Your task to perform on an android device: turn off notifications in google photos Image 0: 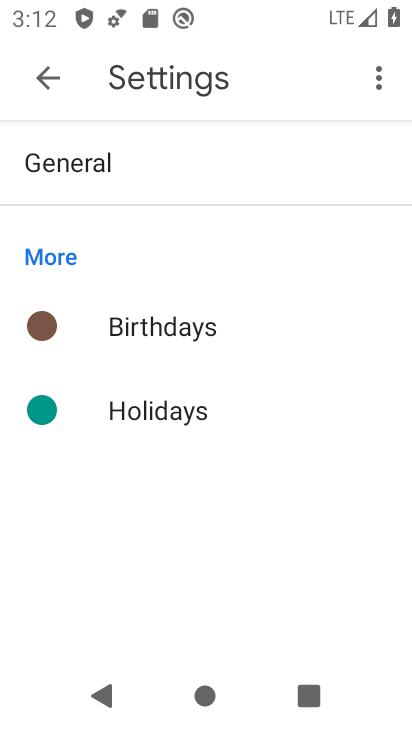
Step 0: press home button
Your task to perform on an android device: turn off notifications in google photos Image 1: 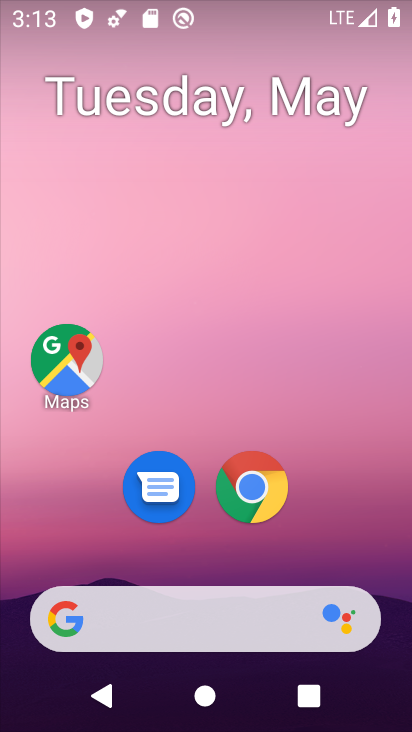
Step 1: drag from (319, 520) to (309, 164)
Your task to perform on an android device: turn off notifications in google photos Image 2: 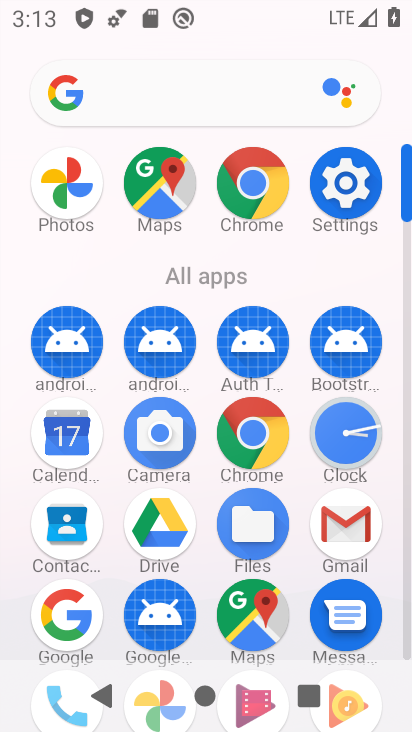
Step 2: drag from (210, 561) to (222, 318)
Your task to perform on an android device: turn off notifications in google photos Image 3: 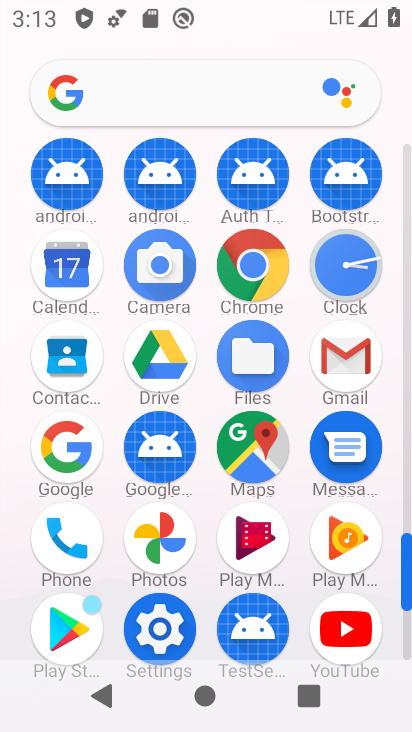
Step 3: click (158, 550)
Your task to perform on an android device: turn off notifications in google photos Image 4: 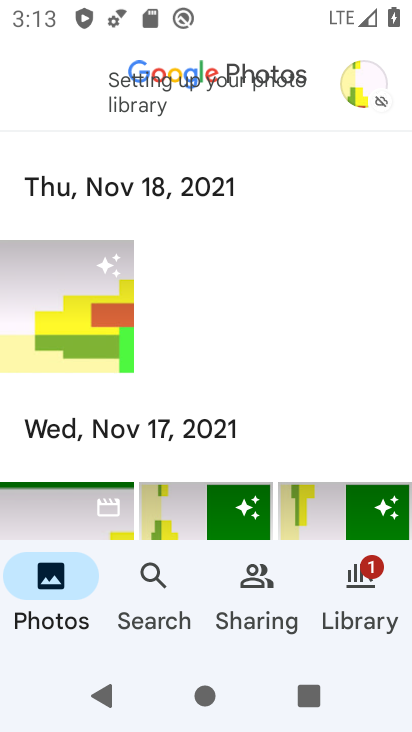
Step 4: click (363, 83)
Your task to perform on an android device: turn off notifications in google photos Image 5: 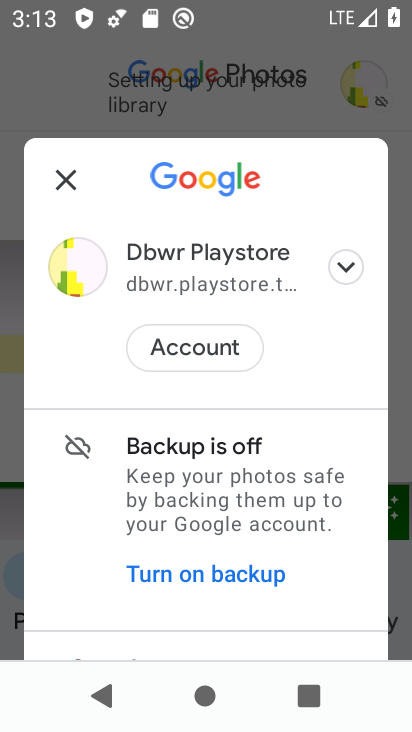
Step 5: drag from (289, 490) to (294, 142)
Your task to perform on an android device: turn off notifications in google photos Image 6: 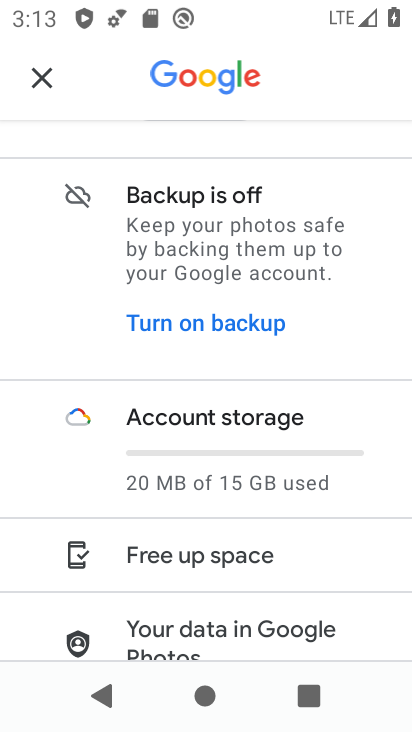
Step 6: drag from (269, 566) to (306, 178)
Your task to perform on an android device: turn off notifications in google photos Image 7: 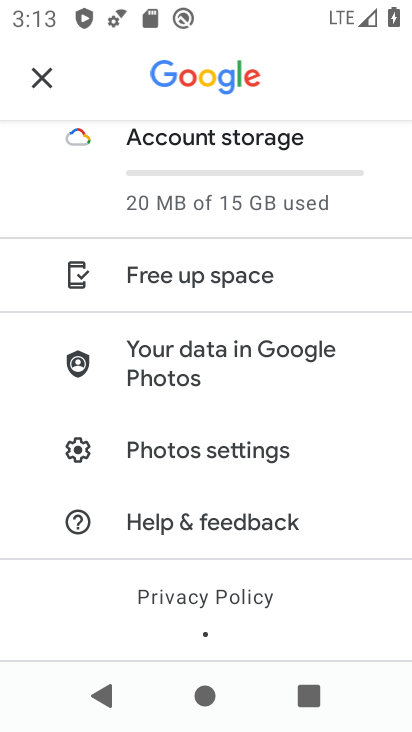
Step 7: click (211, 453)
Your task to perform on an android device: turn off notifications in google photos Image 8: 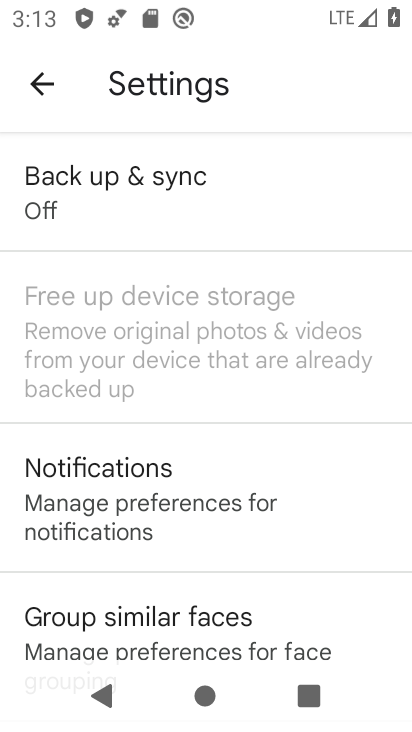
Step 8: click (217, 494)
Your task to perform on an android device: turn off notifications in google photos Image 9: 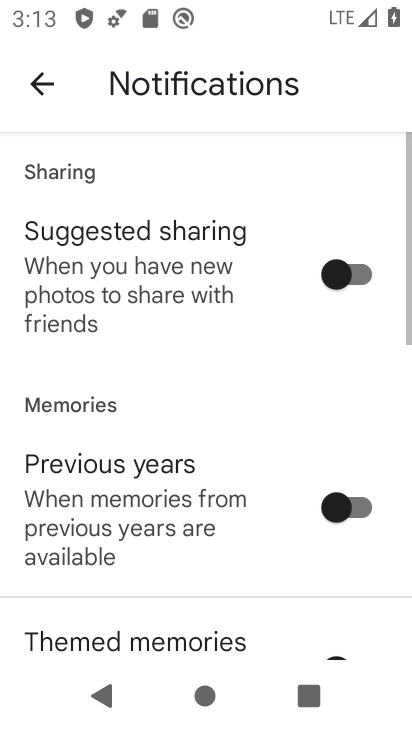
Step 9: drag from (212, 540) to (246, 218)
Your task to perform on an android device: turn off notifications in google photos Image 10: 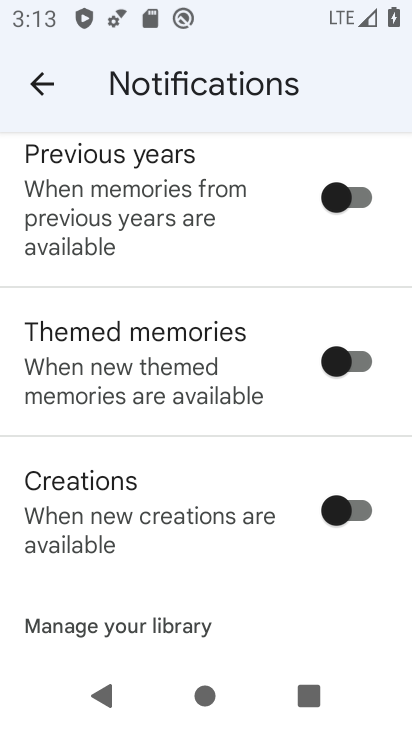
Step 10: drag from (201, 547) to (295, 728)
Your task to perform on an android device: turn off notifications in google photos Image 11: 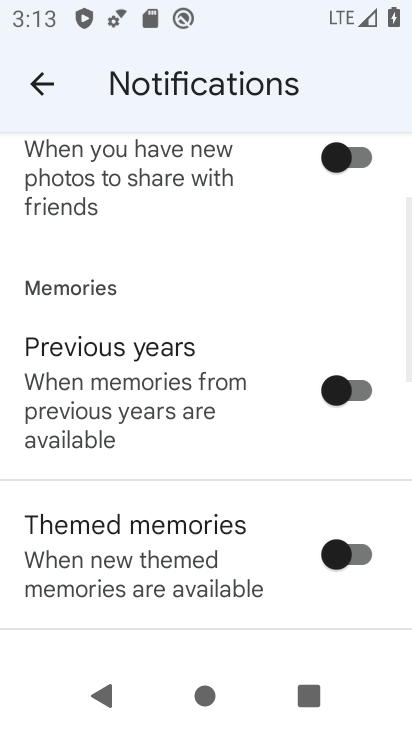
Step 11: drag from (168, 328) to (232, 703)
Your task to perform on an android device: turn off notifications in google photos Image 12: 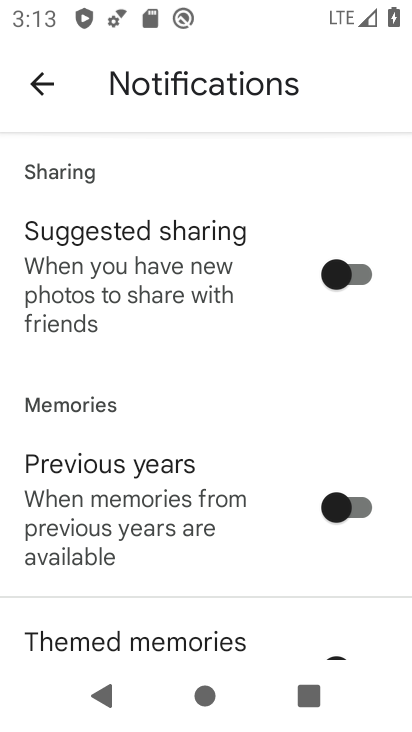
Step 12: drag from (166, 328) to (160, 573)
Your task to perform on an android device: turn off notifications in google photos Image 13: 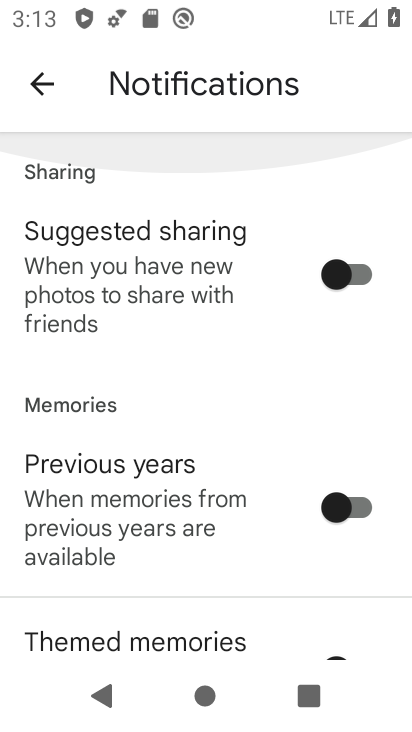
Step 13: drag from (161, 570) to (201, 236)
Your task to perform on an android device: turn off notifications in google photos Image 14: 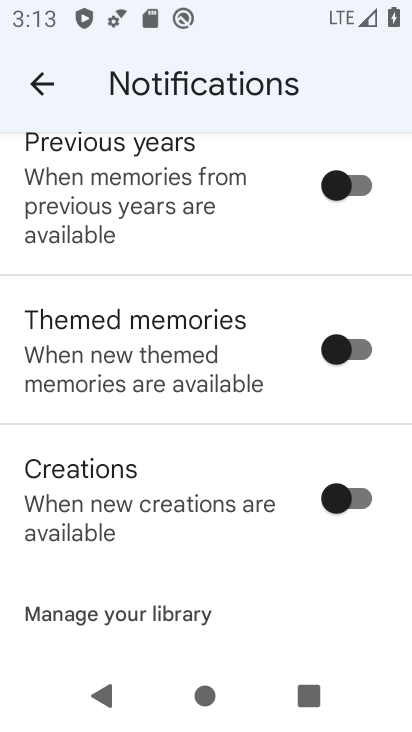
Step 14: drag from (181, 606) to (218, 220)
Your task to perform on an android device: turn off notifications in google photos Image 15: 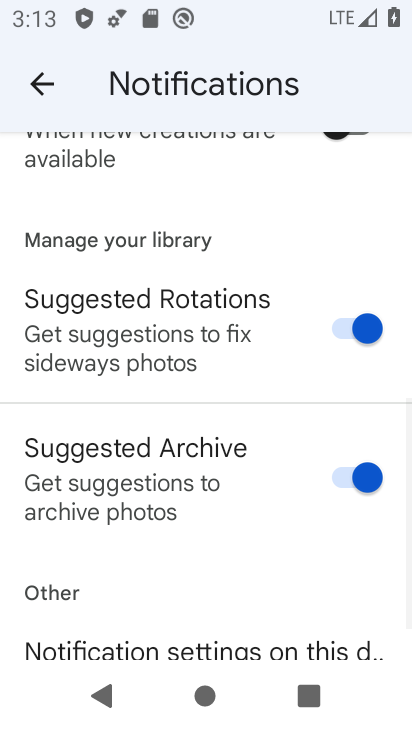
Step 15: drag from (206, 566) to (220, 194)
Your task to perform on an android device: turn off notifications in google photos Image 16: 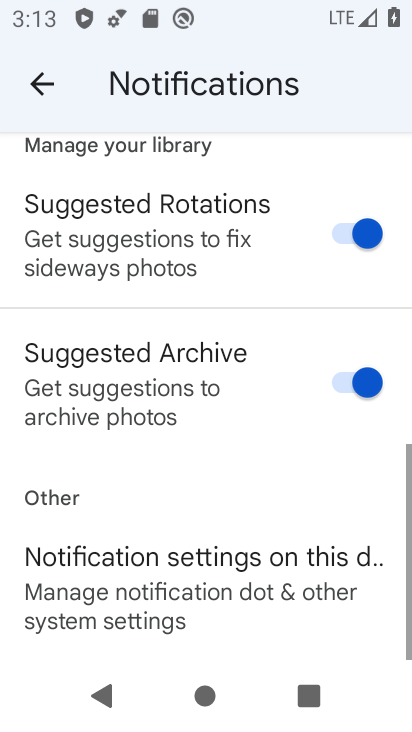
Step 16: drag from (162, 239) to (257, 144)
Your task to perform on an android device: turn off notifications in google photos Image 17: 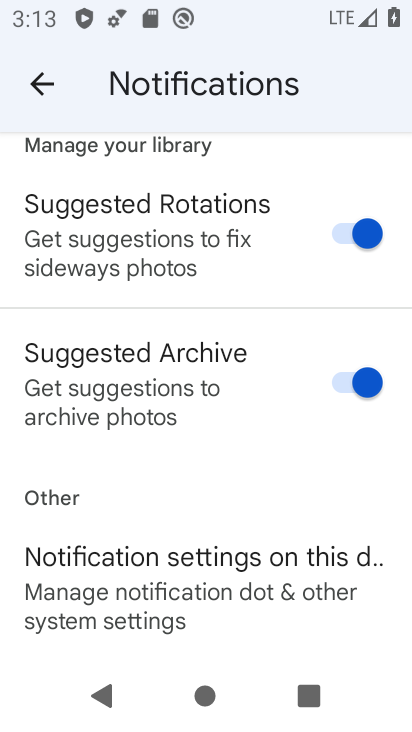
Step 17: click (236, 589)
Your task to perform on an android device: turn off notifications in google photos Image 18: 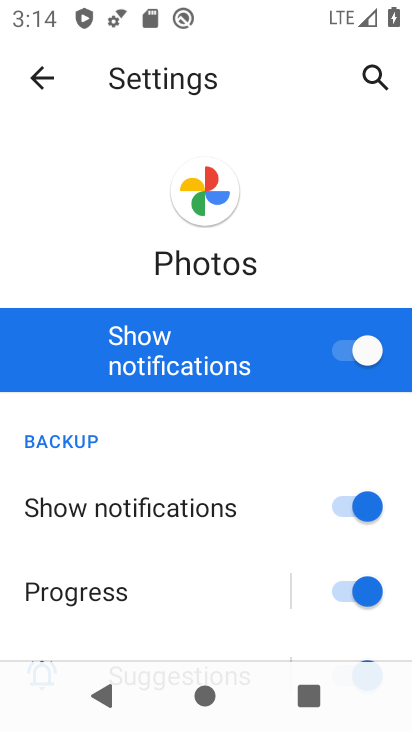
Step 18: click (361, 341)
Your task to perform on an android device: turn off notifications in google photos Image 19: 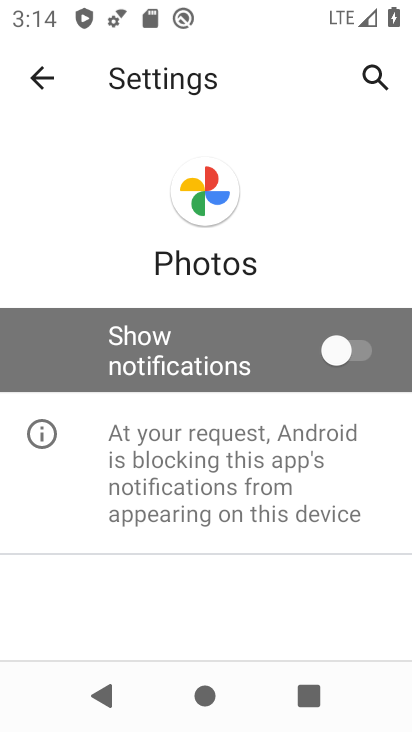
Step 19: task complete